Your task to perform on an android device: change the clock display to analog Image 0: 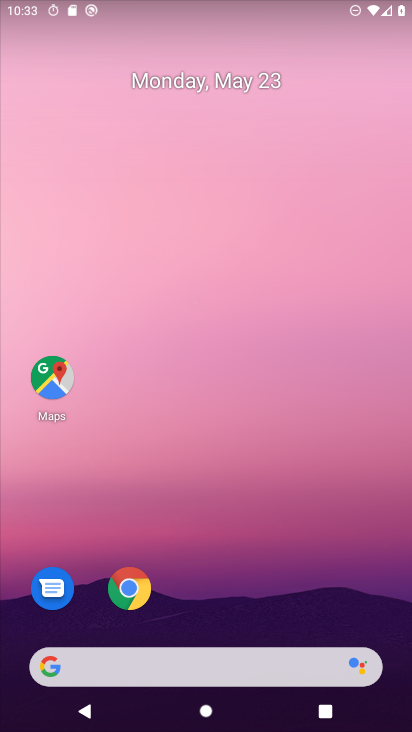
Step 0: drag from (367, 551) to (322, 203)
Your task to perform on an android device: change the clock display to analog Image 1: 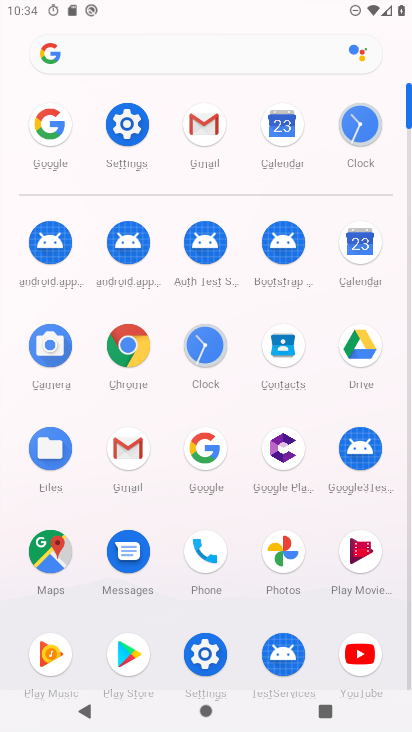
Step 1: click (137, 128)
Your task to perform on an android device: change the clock display to analog Image 2: 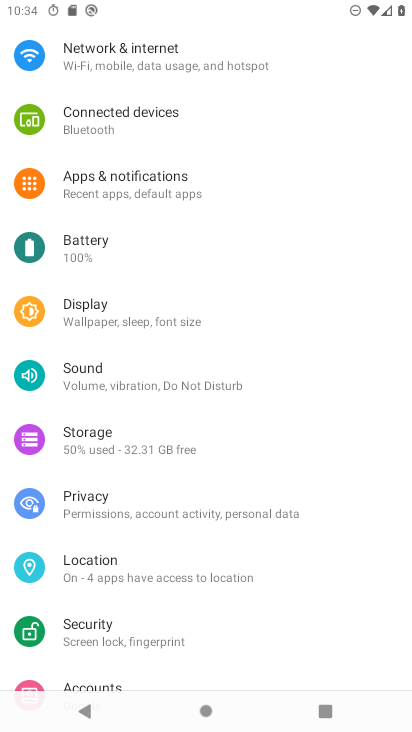
Step 2: click (106, 302)
Your task to perform on an android device: change the clock display to analog Image 3: 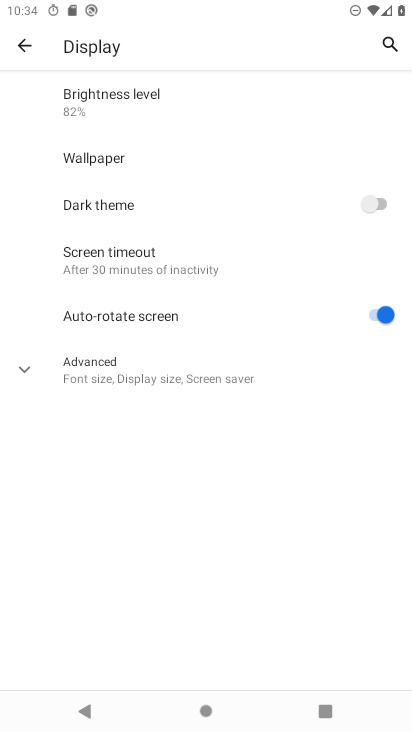
Step 3: press back button
Your task to perform on an android device: change the clock display to analog Image 4: 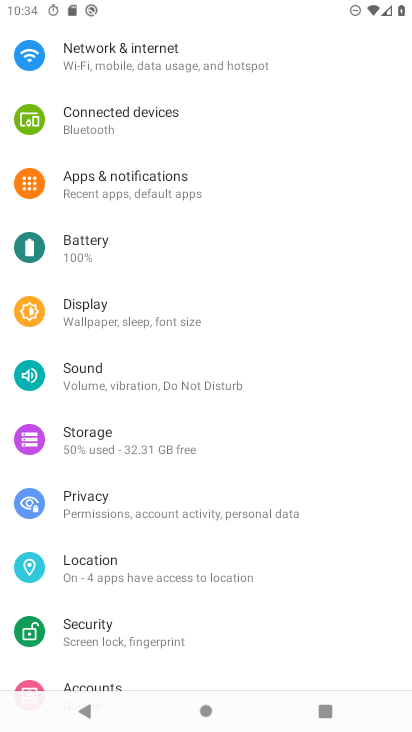
Step 4: press back button
Your task to perform on an android device: change the clock display to analog Image 5: 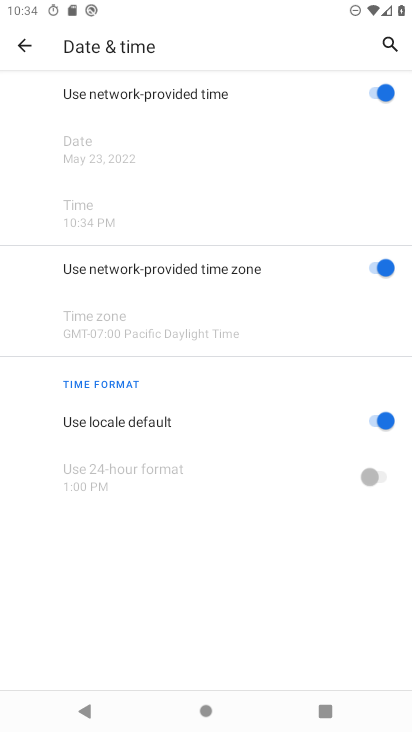
Step 5: press home button
Your task to perform on an android device: change the clock display to analog Image 6: 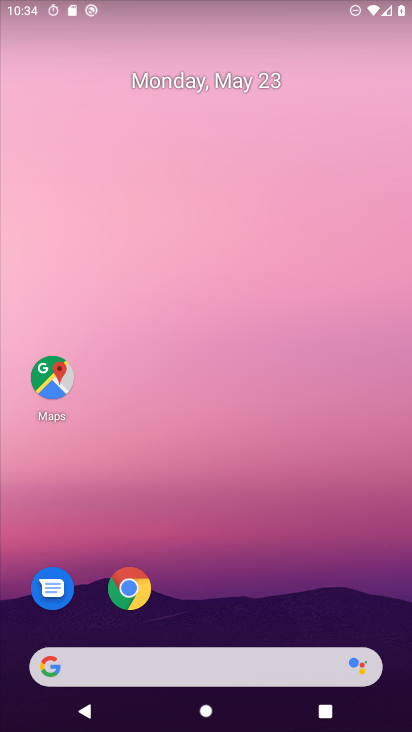
Step 6: drag from (387, 692) to (357, 211)
Your task to perform on an android device: change the clock display to analog Image 7: 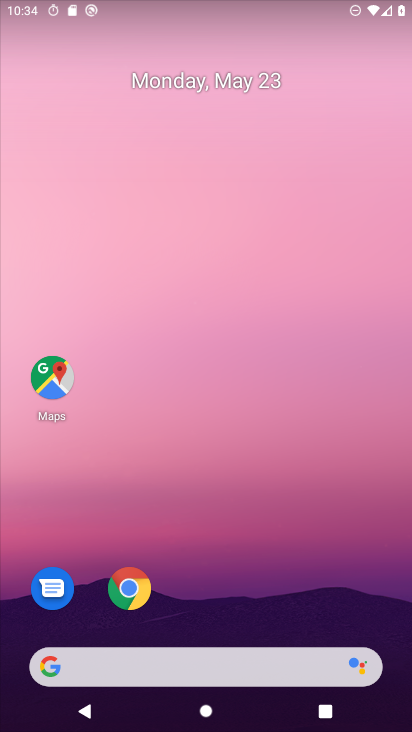
Step 7: drag from (401, 711) to (339, 239)
Your task to perform on an android device: change the clock display to analog Image 8: 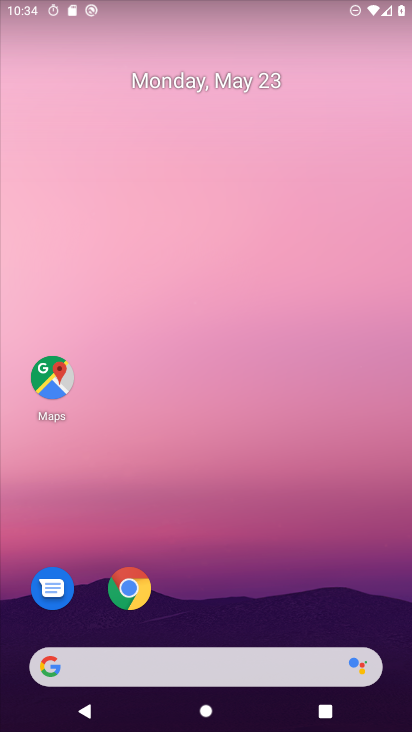
Step 8: drag from (389, 676) to (331, 72)
Your task to perform on an android device: change the clock display to analog Image 9: 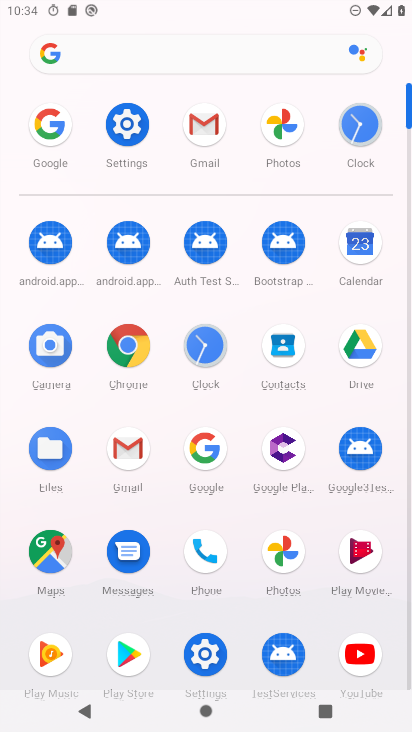
Step 9: click (358, 127)
Your task to perform on an android device: change the clock display to analog Image 10: 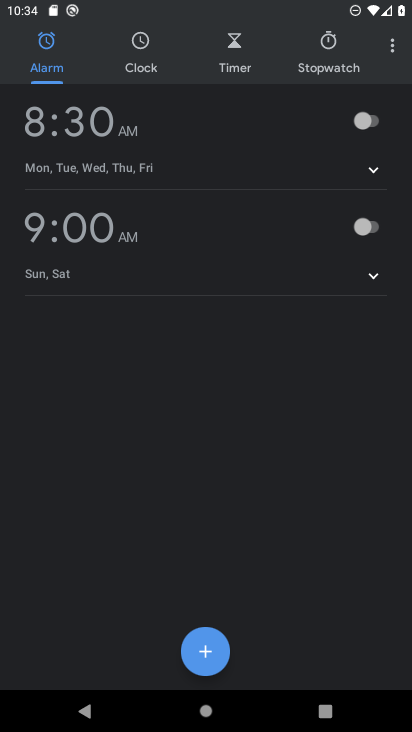
Step 10: click (390, 40)
Your task to perform on an android device: change the clock display to analog Image 11: 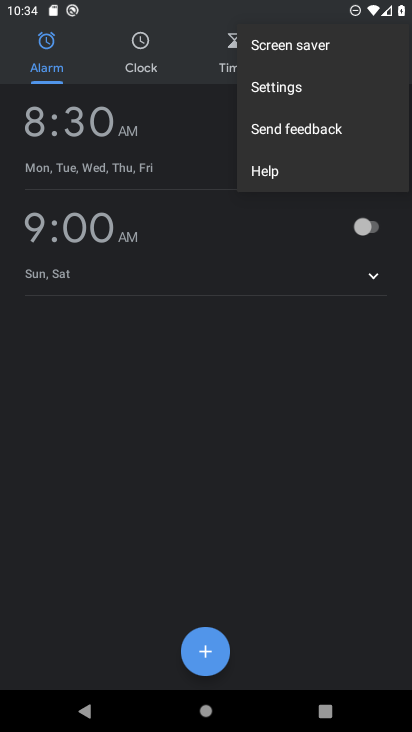
Step 11: click (298, 85)
Your task to perform on an android device: change the clock display to analog Image 12: 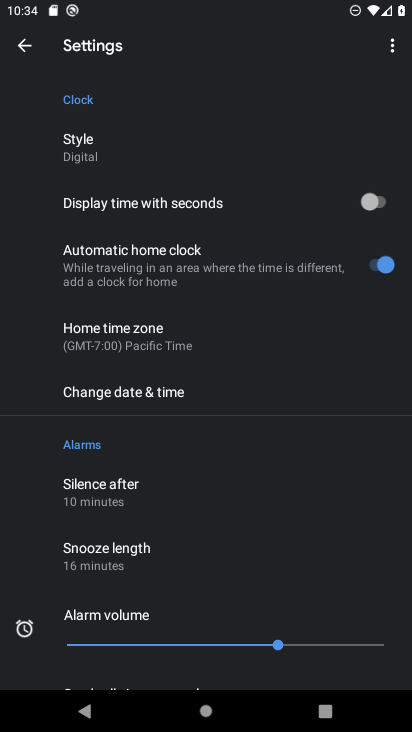
Step 12: click (60, 140)
Your task to perform on an android device: change the clock display to analog Image 13: 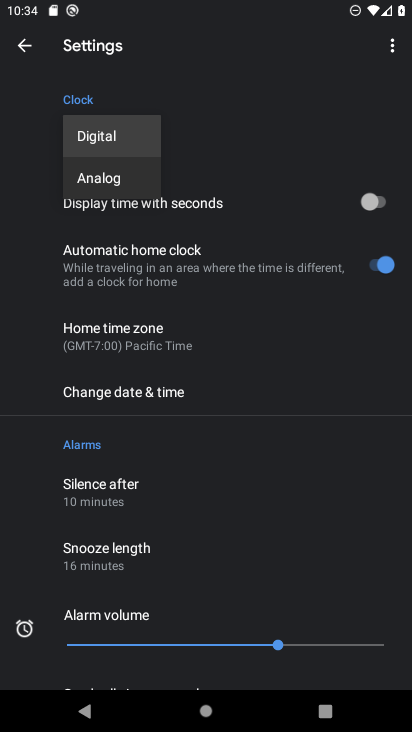
Step 13: click (89, 138)
Your task to perform on an android device: change the clock display to analog Image 14: 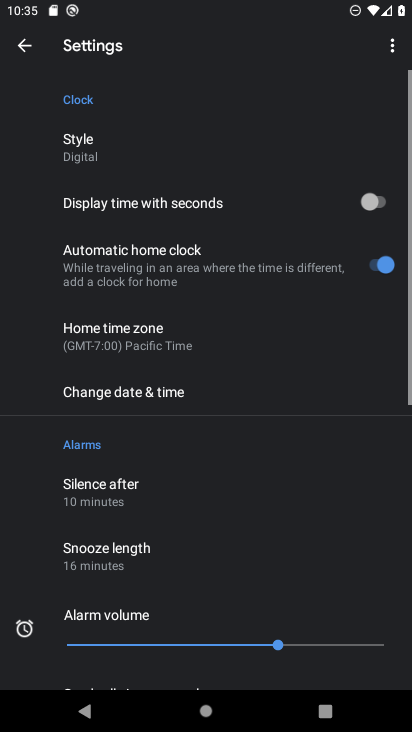
Step 14: click (89, 154)
Your task to perform on an android device: change the clock display to analog Image 15: 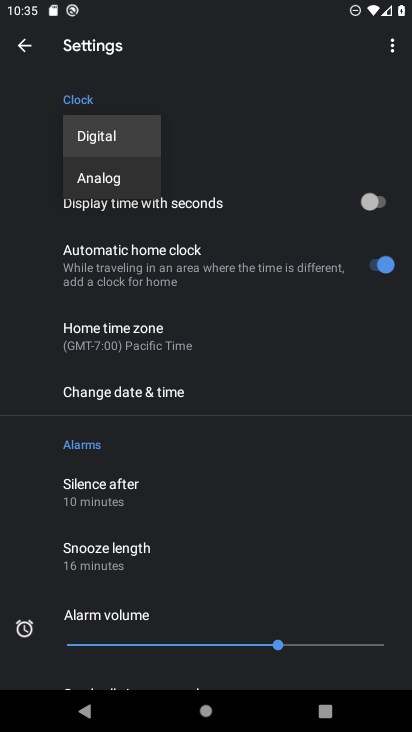
Step 15: click (118, 170)
Your task to perform on an android device: change the clock display to analog Image 16: 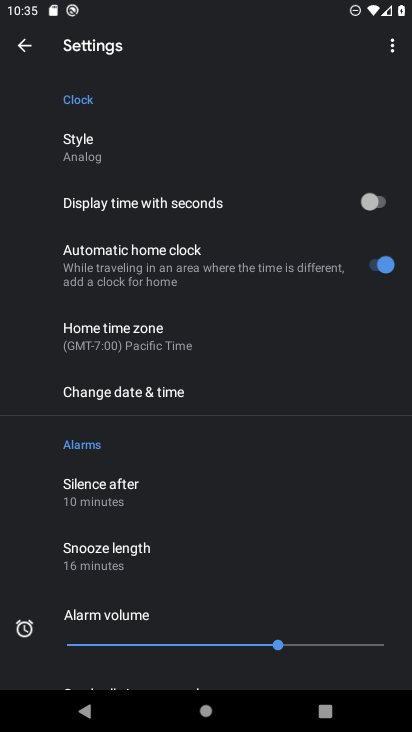
Step 16: task complete